Your task to perform on an android device: change timer sound Image 0: 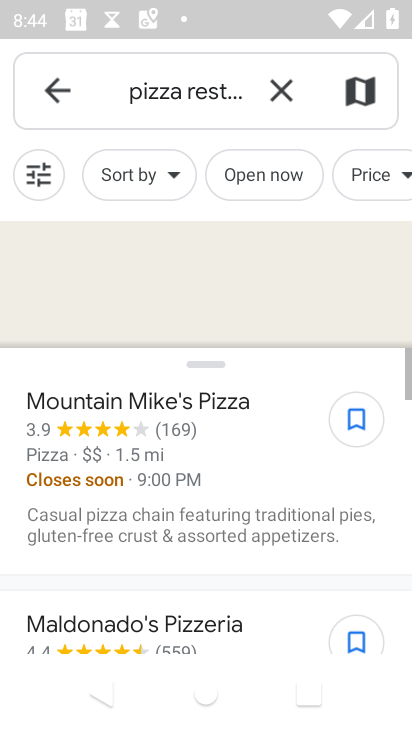
Step 0: press home button
Your task to perform on an android device: change timer sound Image 1: 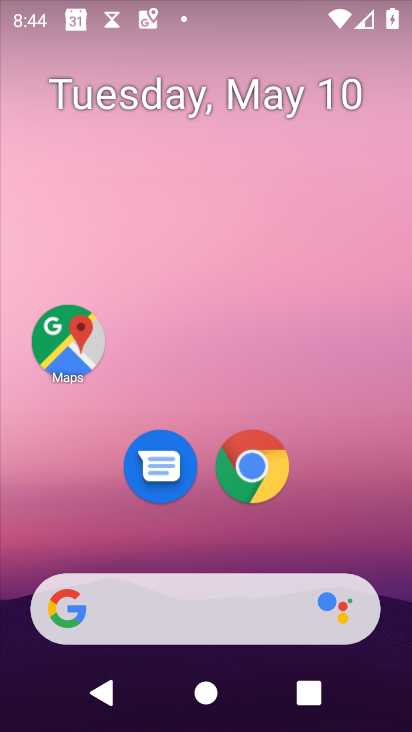
Step 1: drag from (314, 522) to (340, 128)
Your task to perform on an android device: change timer sound Image 2: 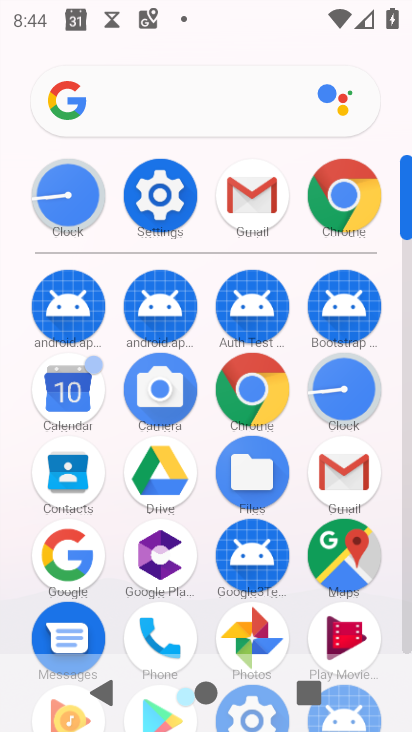
Step 2: click (353, 384)
Your task to perform on an android device: change timer sound Image 3: 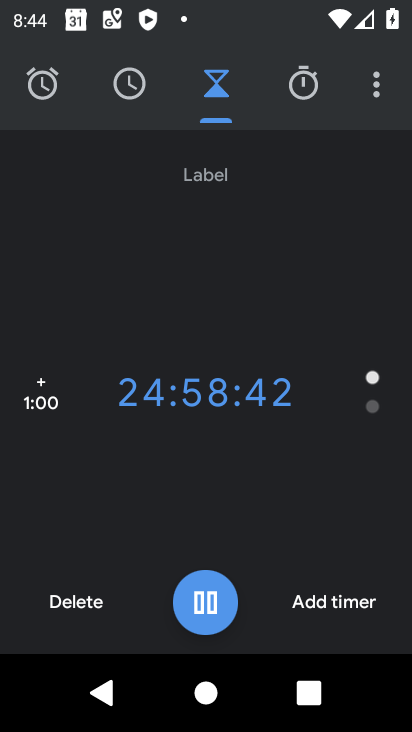
Step 3: click (370, 92)
Your task to perform on an android device: change timer sound Image 4: 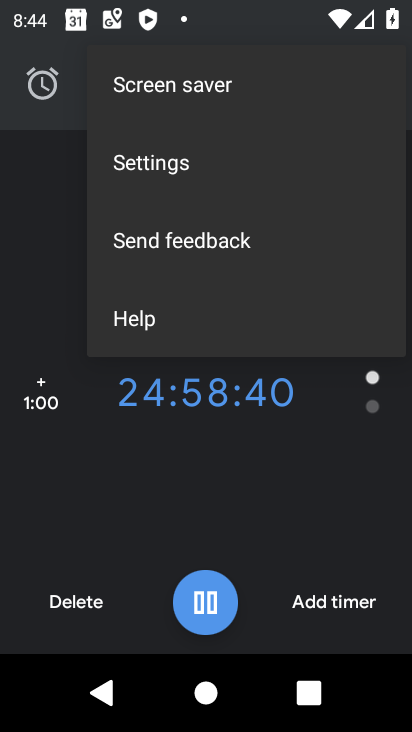
Step 4: click (263, 177)
Your task to perform on an android device: change timer sound Image 5: 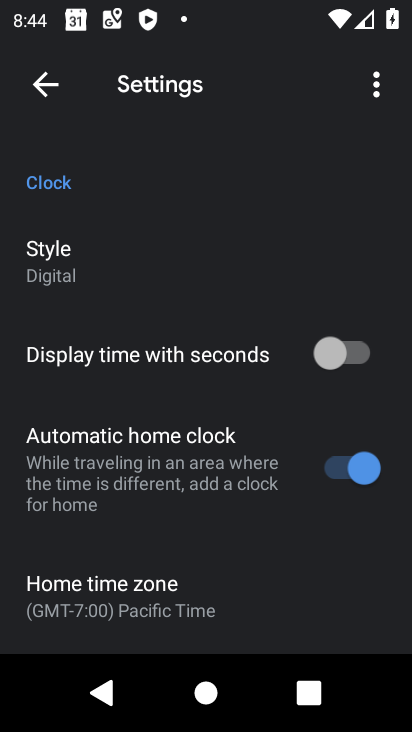
Step 5: drag from (150, 540) to (127, 422)
Your task to perform on an android device: change timer sound Image 6: 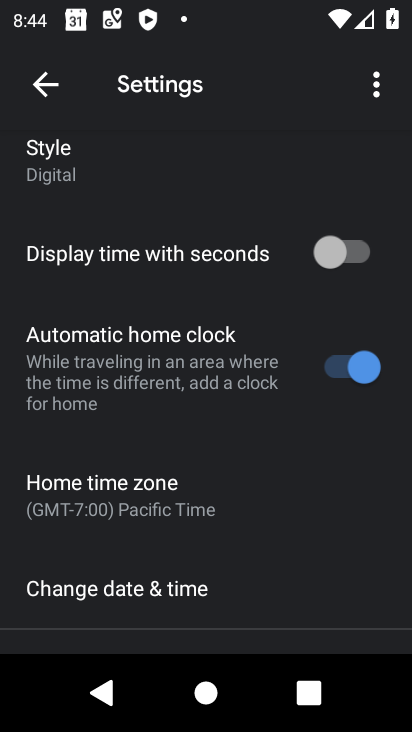
Step 6: drag from (166, 539) to (165, 277)
Your task to perform on an android device: change timer sound Image 7: 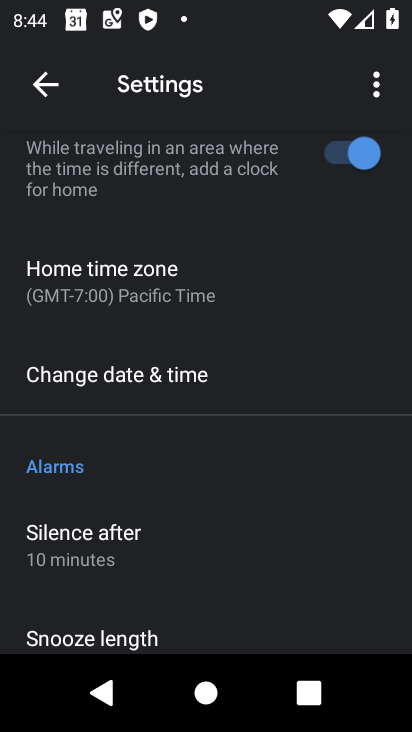
Step 7: drag from (197, 555) to (190, 370)
Your task to perform on an android device: change timer sound Image 8: 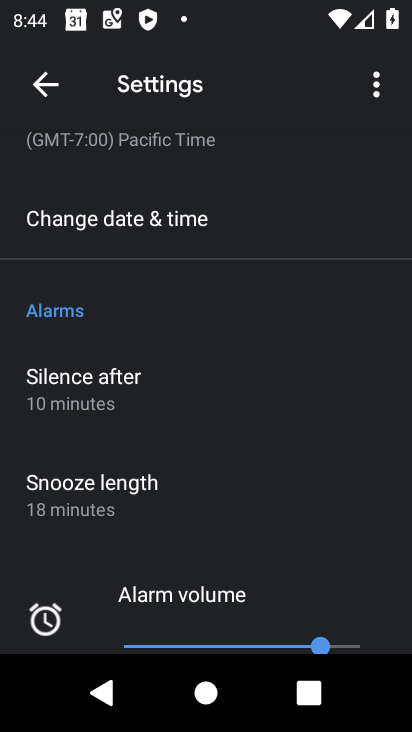
Step 8: drag from (175, 572) to (174, 369)
Your task to perform on an android device: change timer sound Image 9: 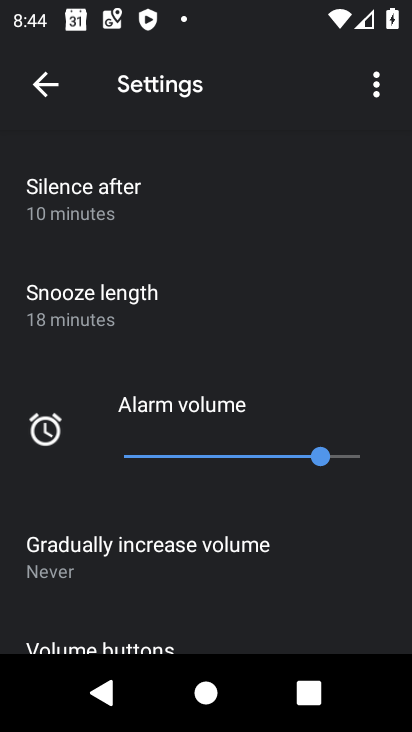
Step 9: drag from (184, 559) to (187, 395)
Your task to perform on an android device: change timer sound Image 10: 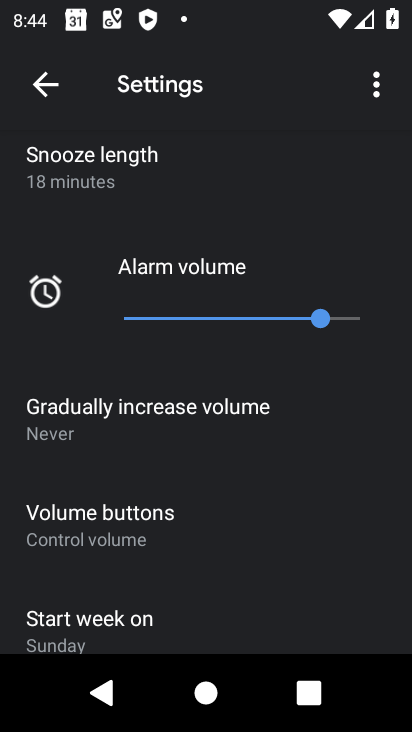
Step 10: drag from (175, 575) to (197, 351)
Your task to perform on an android device: change timer sound Image 11: 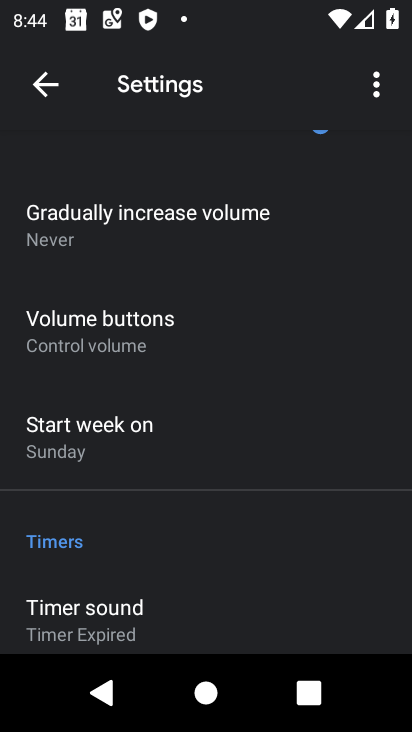
Step 11: click (212, 615)
Your task to perform on an android device: change timer sound Image 12: 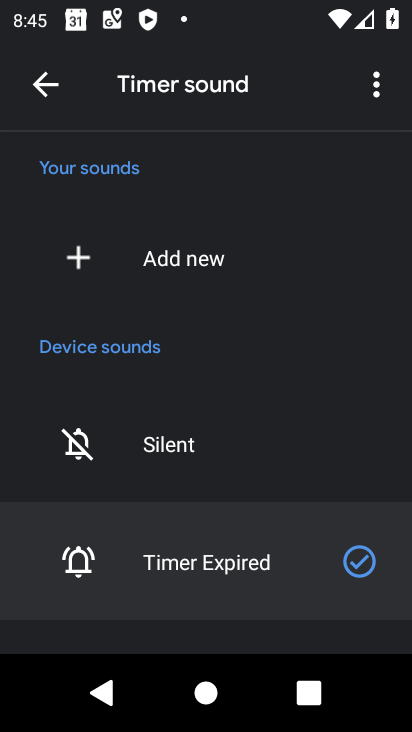
Step 12: drag from (228, 580) to (226, 359)
Your task to perform on an android device: change timer sound Image 13: 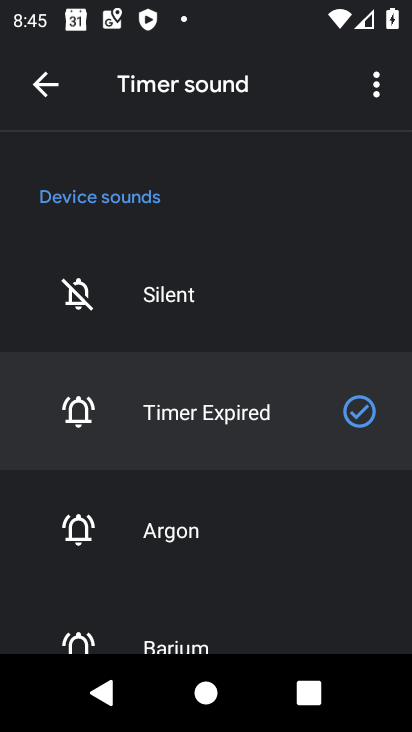
Step 13: click (194, 638)
Your task to perform on an android device: change timer sound Image 14: 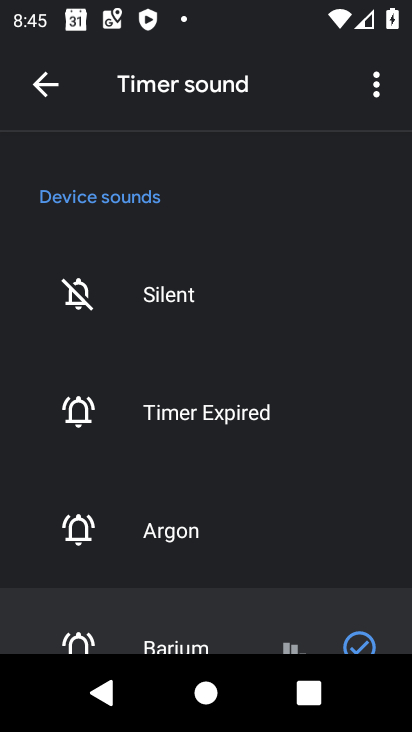
Step 14: task complete